Your task to perform on an android device: turn off notifications in google photos Image 0: 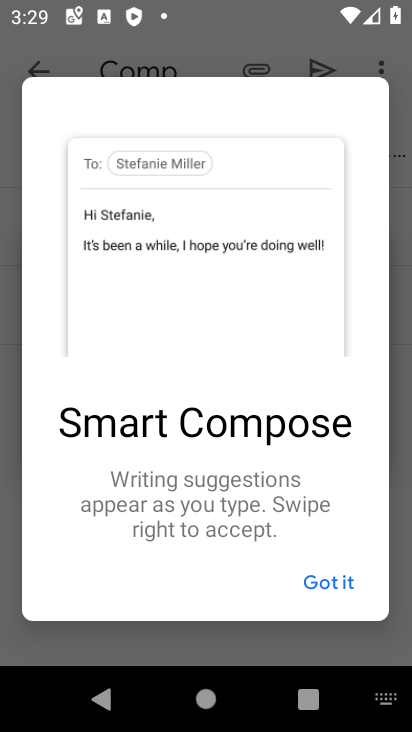
Step 0: press home button
Your task to perform on an android device: turn off notifications in google photos Image 1: 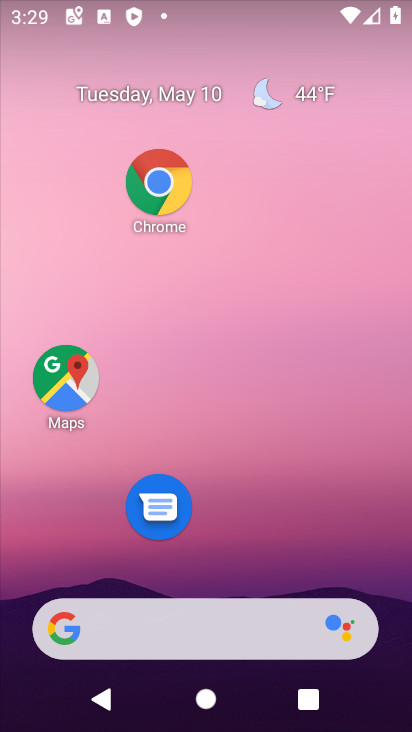
Step 1: drag from (318, 551) to (259, 176)
Your task to perform on an android device: turn off notifications in google photos Image 2: 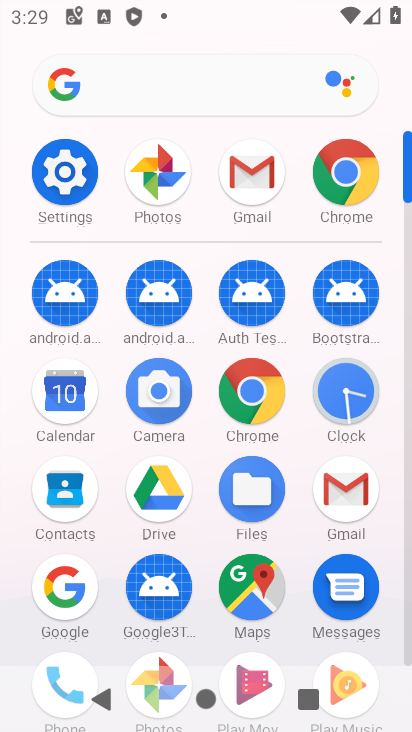
Step 2: click (173, 189)
Your task to perform on an android device: turn off notifications in google photos Image 3: 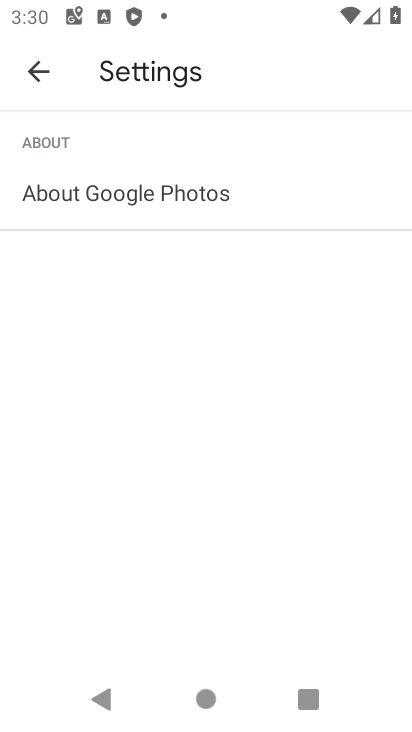
Step 3: click (41, 89)
Your task to perform on an android device: turn off notifications in google photos Image 4: 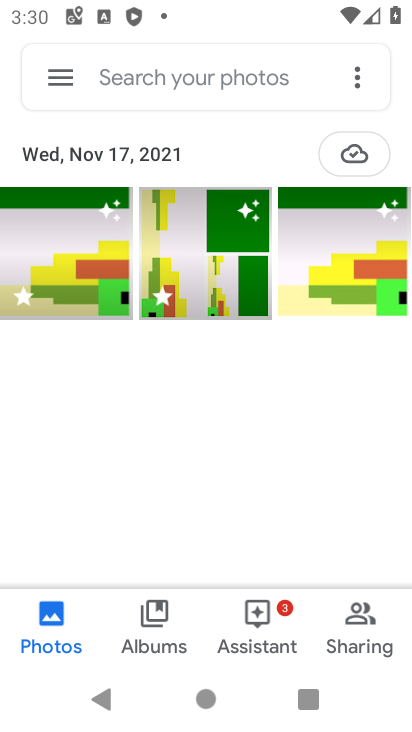
Step 4: click (61, 95)
Your task to perform on an android device: turn off notifications in google photos Image 5: 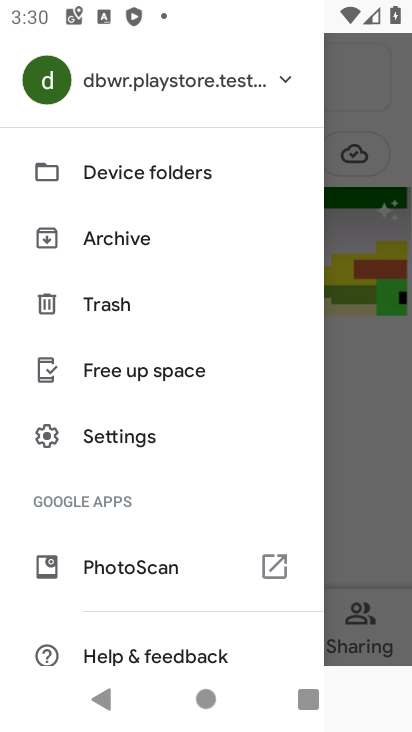
Step 5: click (121, 449)
Your task to perform on an android device: turn off notifications in google photos Image 6: 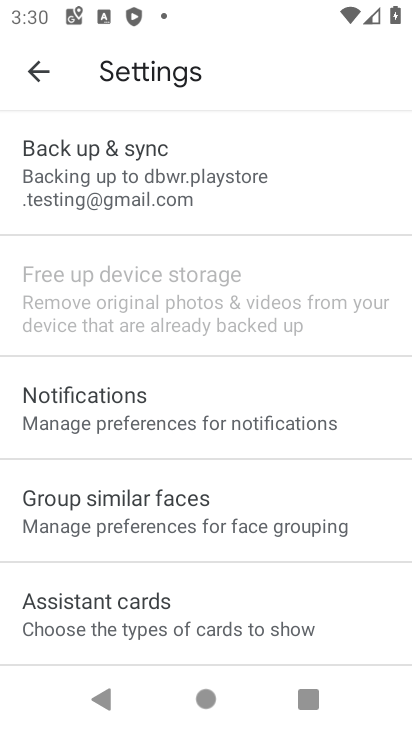
Step 6: click (121, 449)
Your task to perform on an android device: turn off notifications in google photos Image 7: 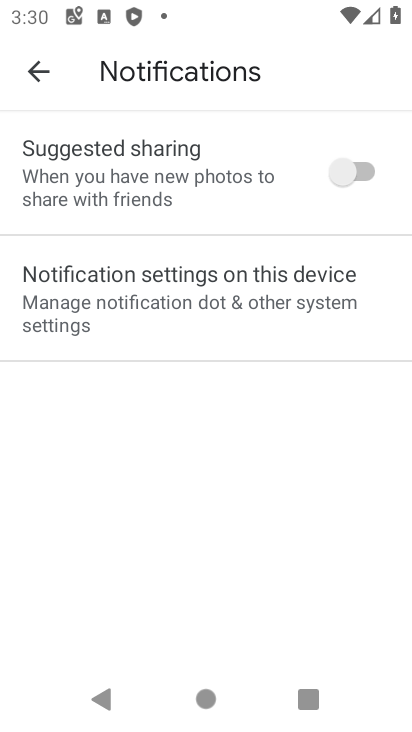
Step 7: click (303, 210)
Your task to perform on an android device: turn off notifications in google photos Image 8: 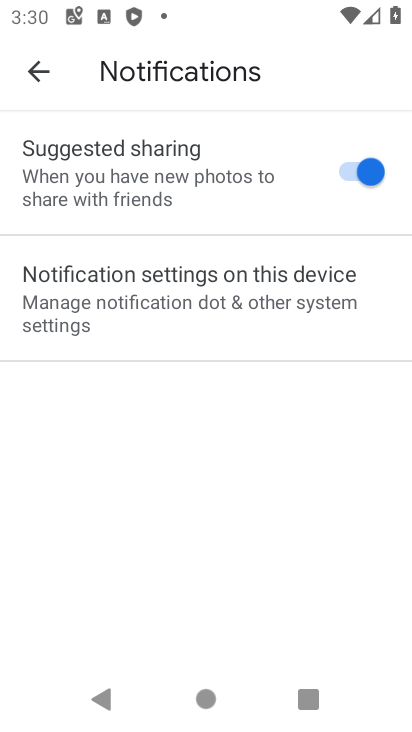
Step 8: task complete